Your task to perform on an android device: Open Reddit.com Image 0: 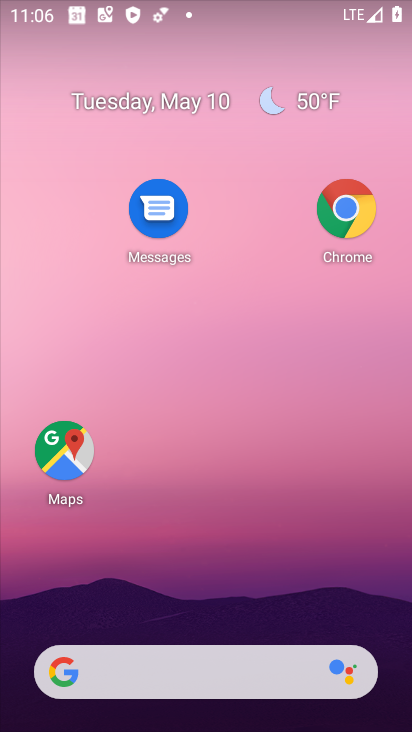
Step 0: click (352, 229)
Your task to perform on an android device: Open Reddit.com Image 1: 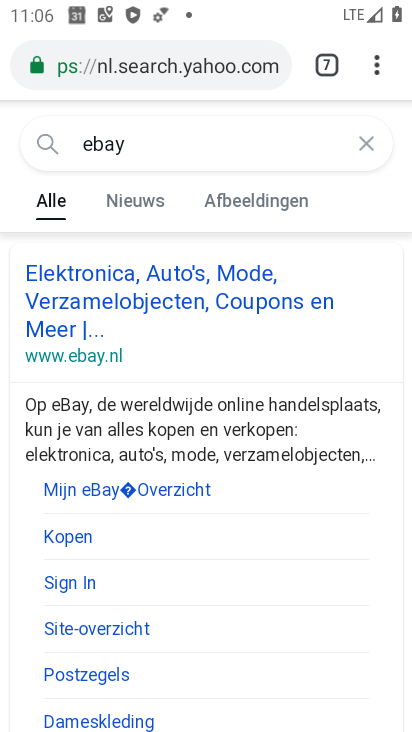
Step 1: click (320, 69)
Your task to perform on an android device: Open Reddit.com Image 2: 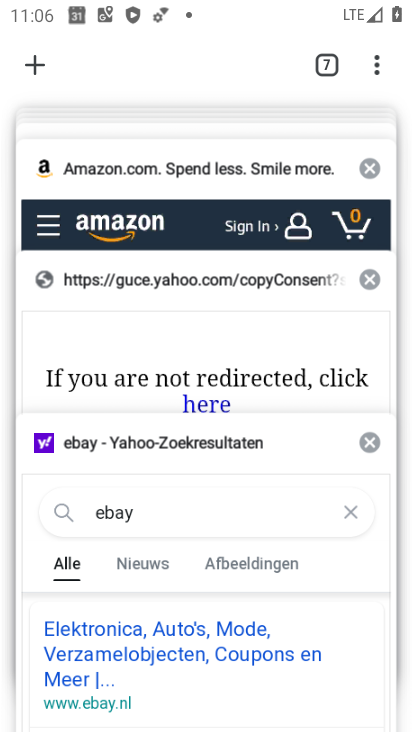
Step 2: click (31, 74)
Your task to perform on an android device: Open Reddit.com Image 3: 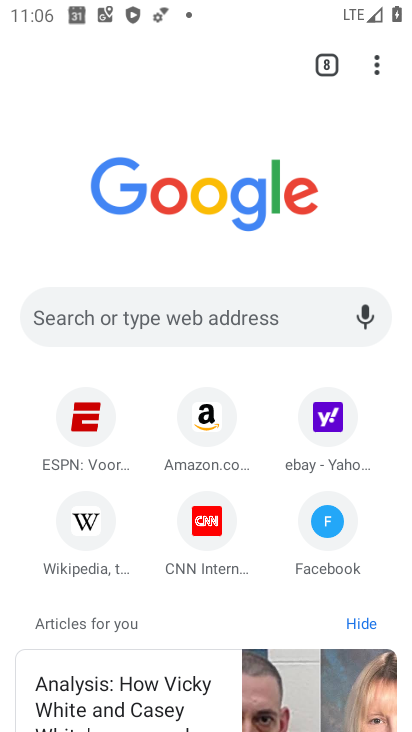
Step 3: click (144, 319)
Your task to perform on an android device: Open Reddit.com Image 4: 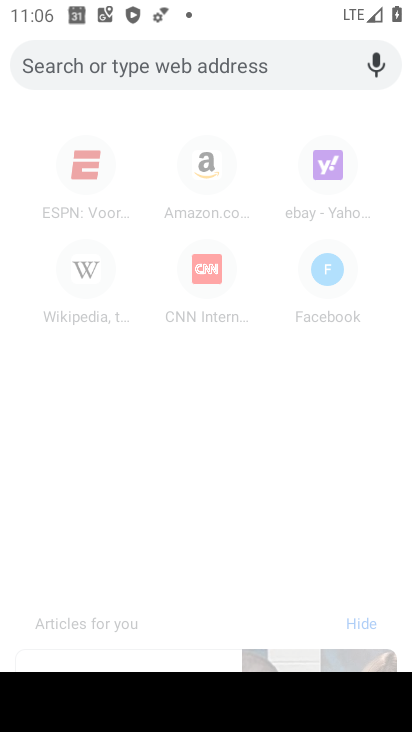
Step 4: type "reddit"
Your task to perform on an android device: Open Reddit.com Image 5: 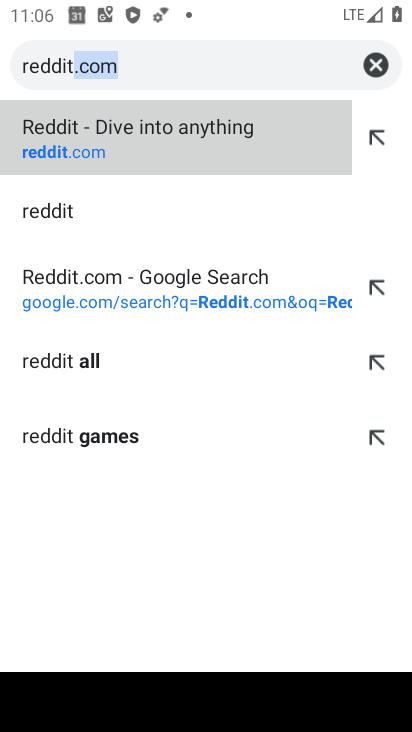
Step 5: click (117, 288)
Your task to perform on an android device: Open Reddit.com Image 6: 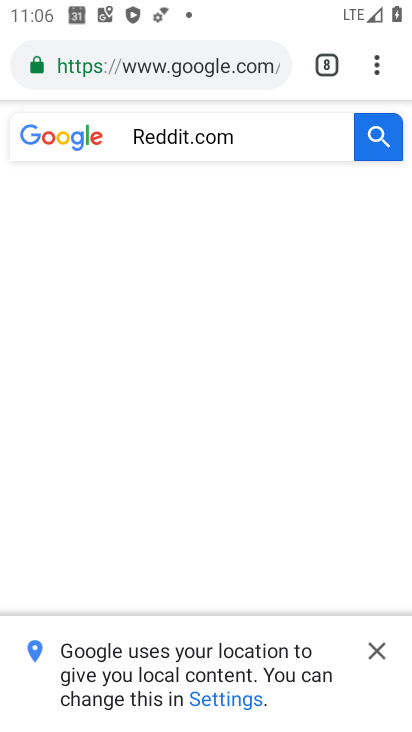
Step 6: task complete